Your task to perform on an android device: Check the news Image 0: 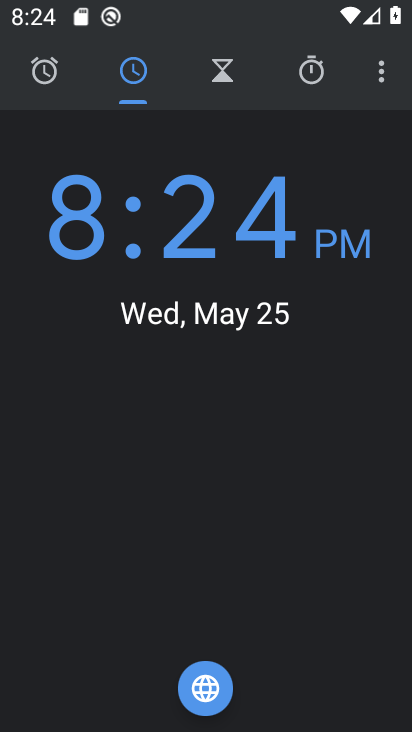
Step 0: press home button
Your task to perform on an android device: Check the news Image 1: 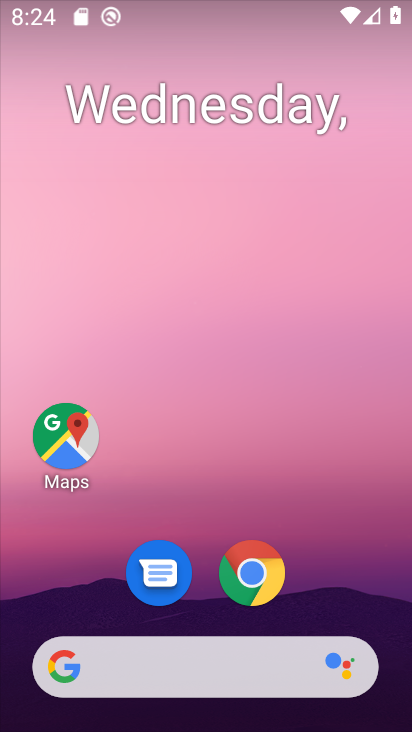
Step 1: task complete